Your task to perform on an android device: Search for sushi restaurants on Maps Image 0: 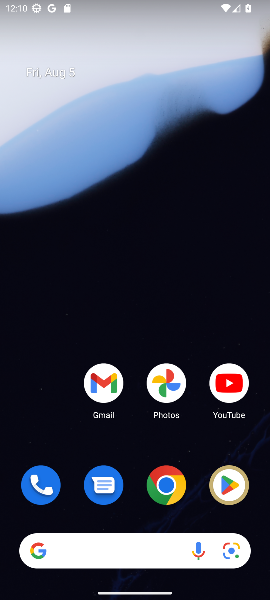
Step 0: drag from (36, 427) to (46, 115)
Your task to perform on an android device: Search for sushi restaurants on Maps Image 1: 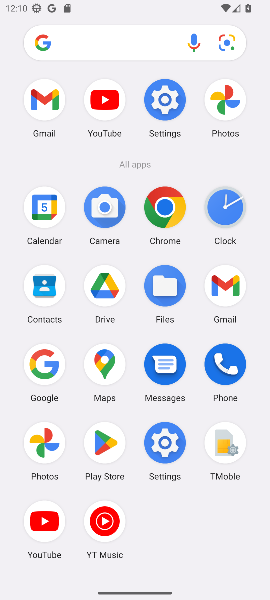
Step 1: click (107, 362)
Your task to perform on an android device: Search for sushi restaurants on Maps Image 2: 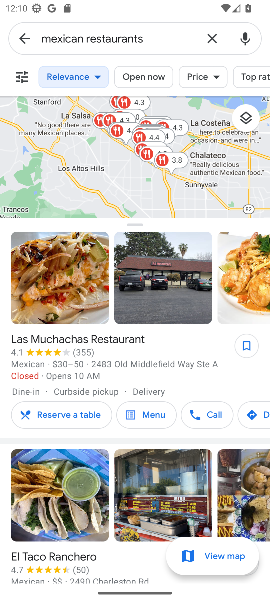
Step 2: click (207, 36)
Your task to perform on an android device: Search for sushi restaurants on Maps Image 3: 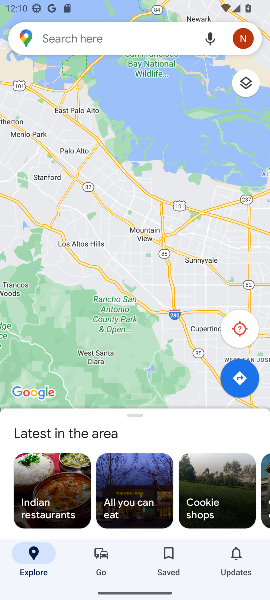
Step 3: click (120, 36)
Your task to perform on an android device: Search for sushi restaurants on Maps Image 4: 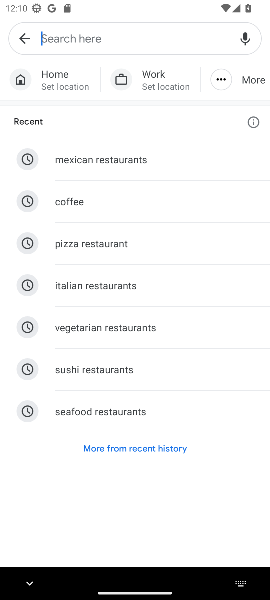
Step 4: click (100, 369)
Your task to perform on an android device: Search for sushi restaurants on Maps Image 5: 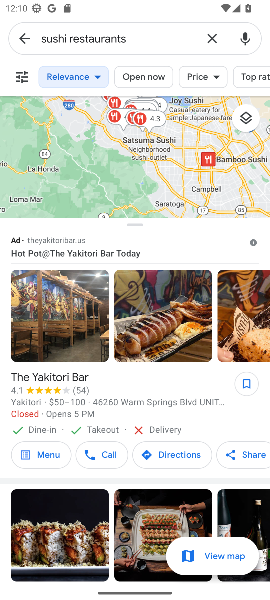
Step 5: task complete